Your task to perform on an android device: create a new album in the google photos Image 0: 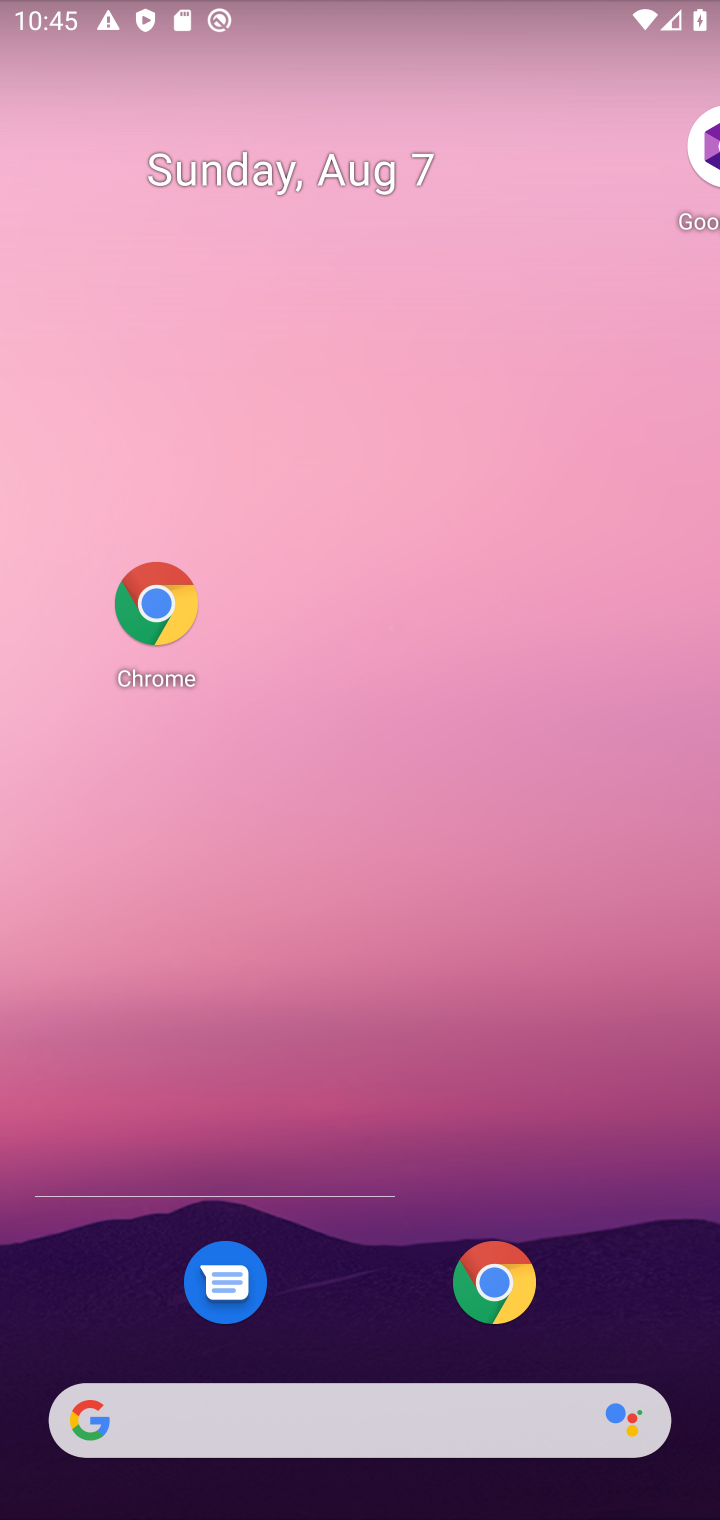
Step 0: press back button
Your task to perform on an android device: create a new album in the google photos Image 1: 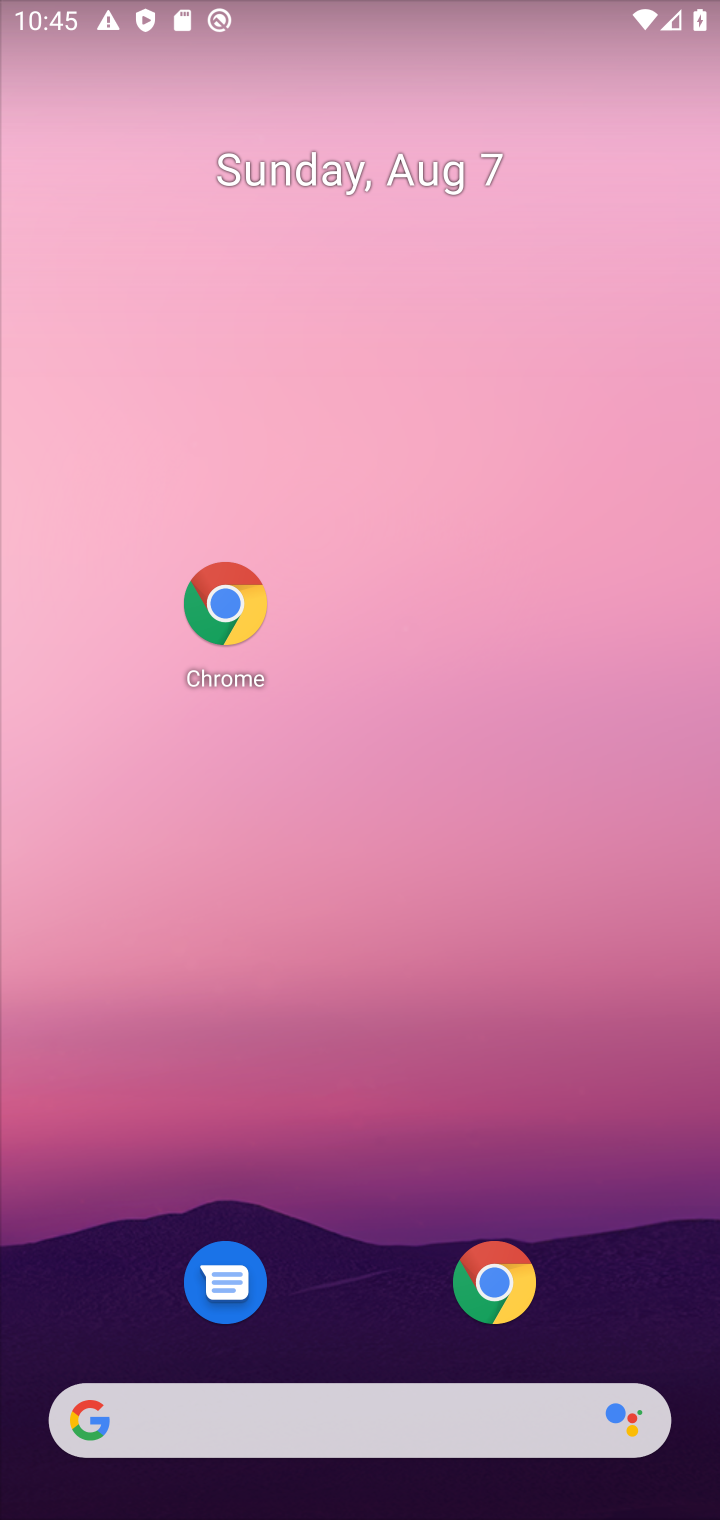
Step 1: click (280, 557)
Your task to perform on an android device: create a new album in the google photos Image 2: 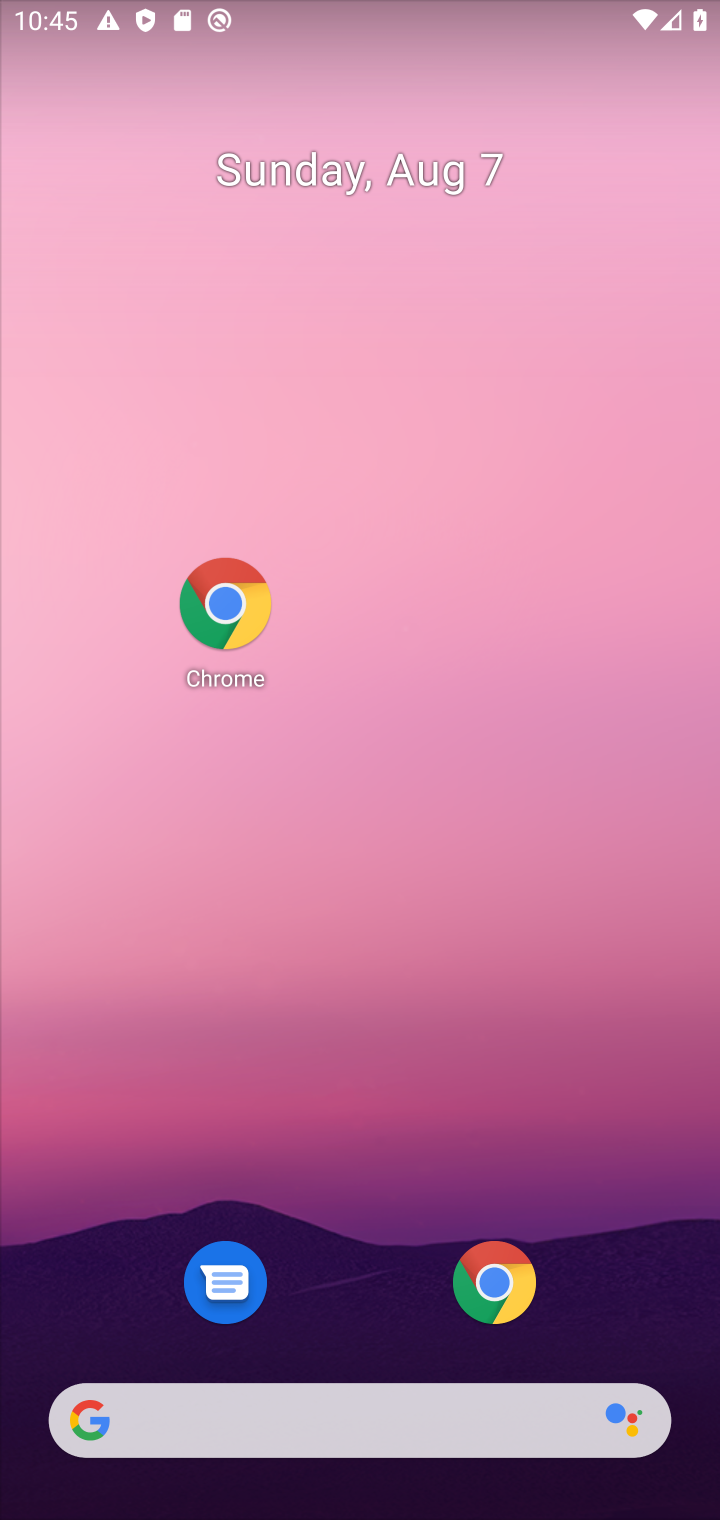
Step 2: drag from (491, 759) to (344, 425)
Your task to perform on an android device: create a new album in the google photos Image 3: 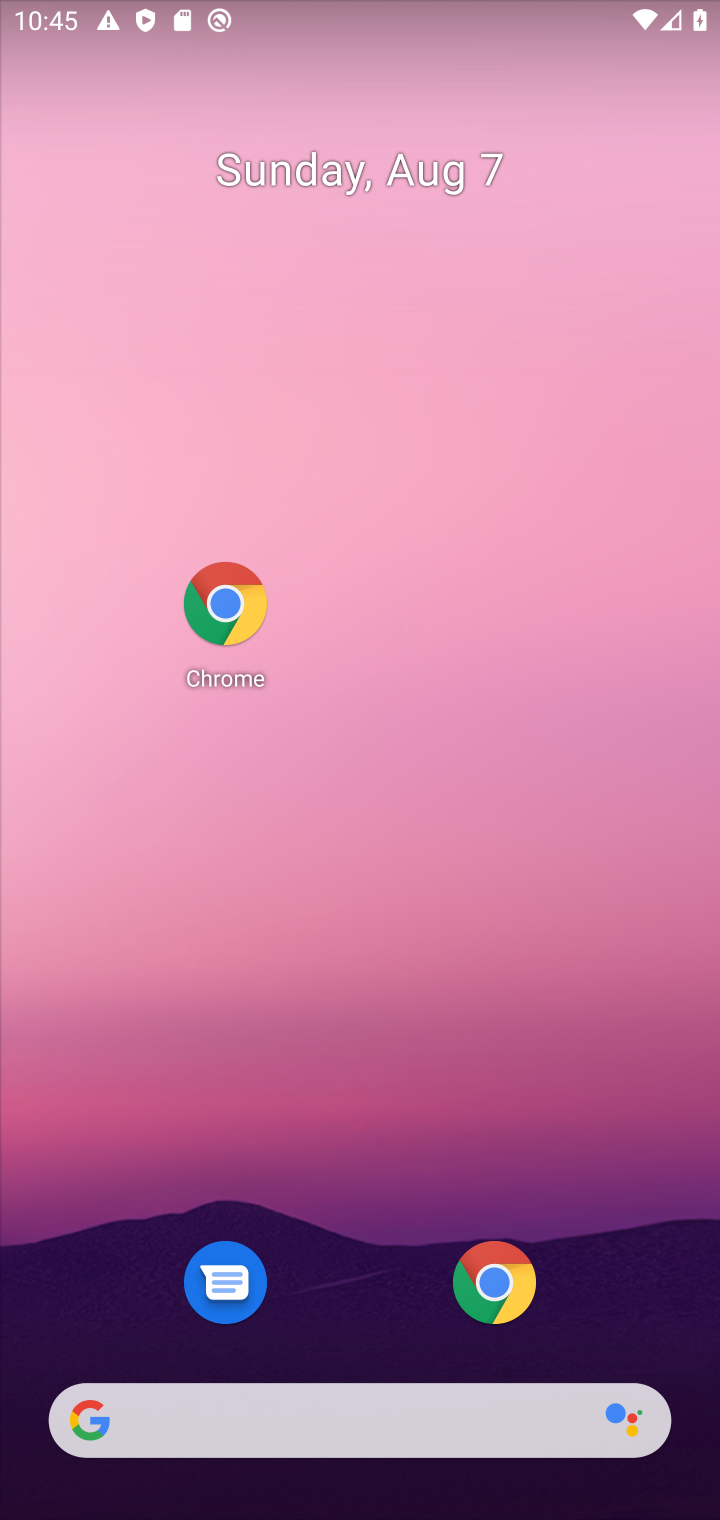
Step 3: click (414, 244)
Your task to perform on an android device: create a new album in the google photos Image 4: 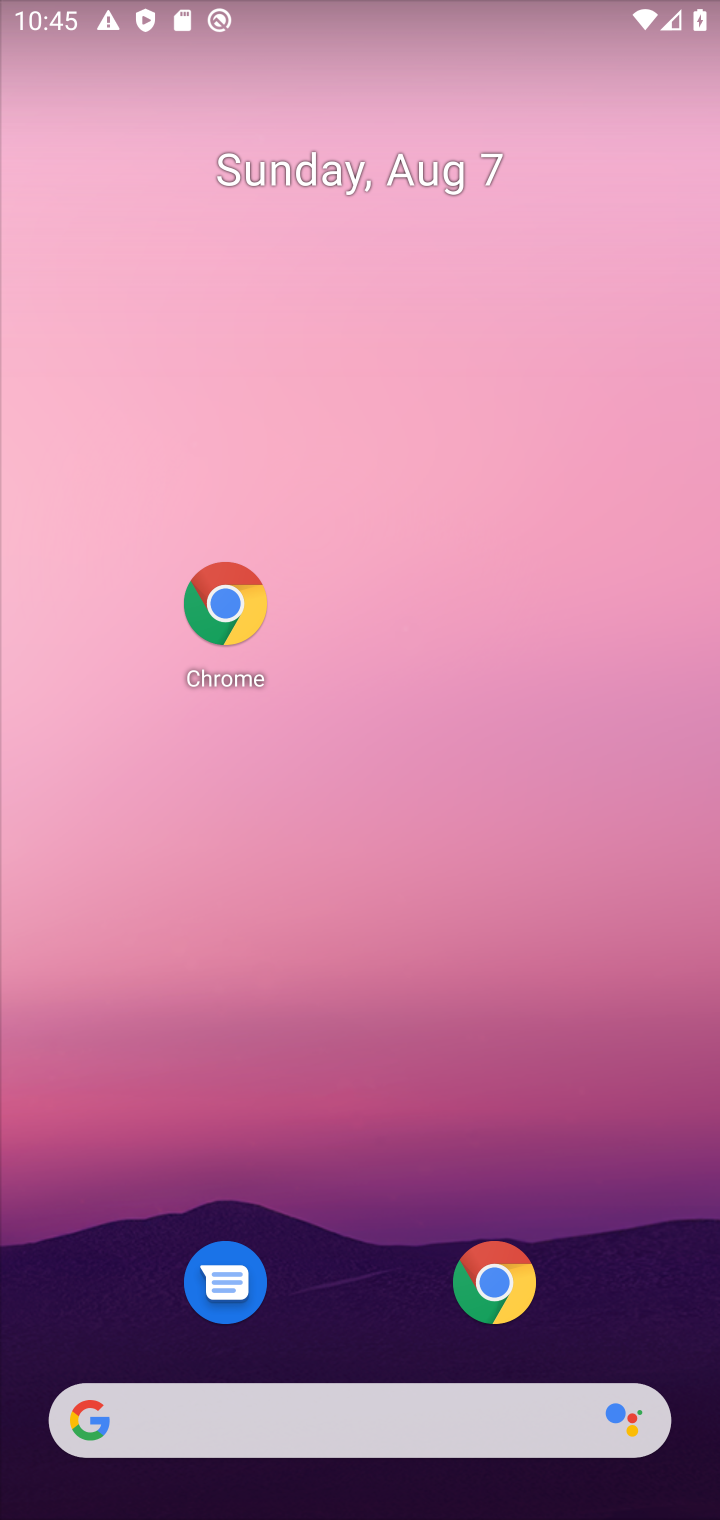
Step 4: click (523, 242)
Your task to perform on an android device: create a new album in the google photos Image 5: 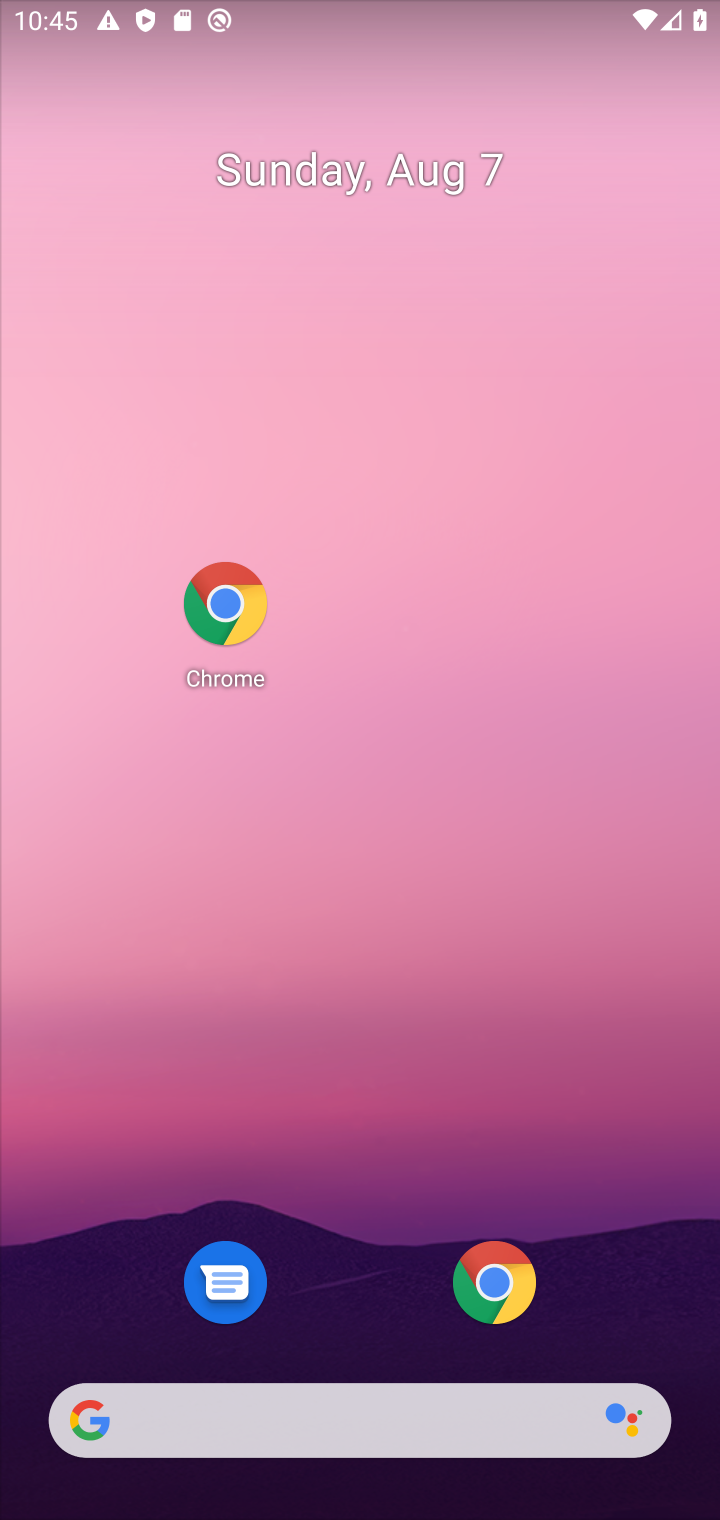
Step 5: drag from (540, 270) to (406, 362)
Your task to perform on an android device: create a new album in the google photos Image 6: 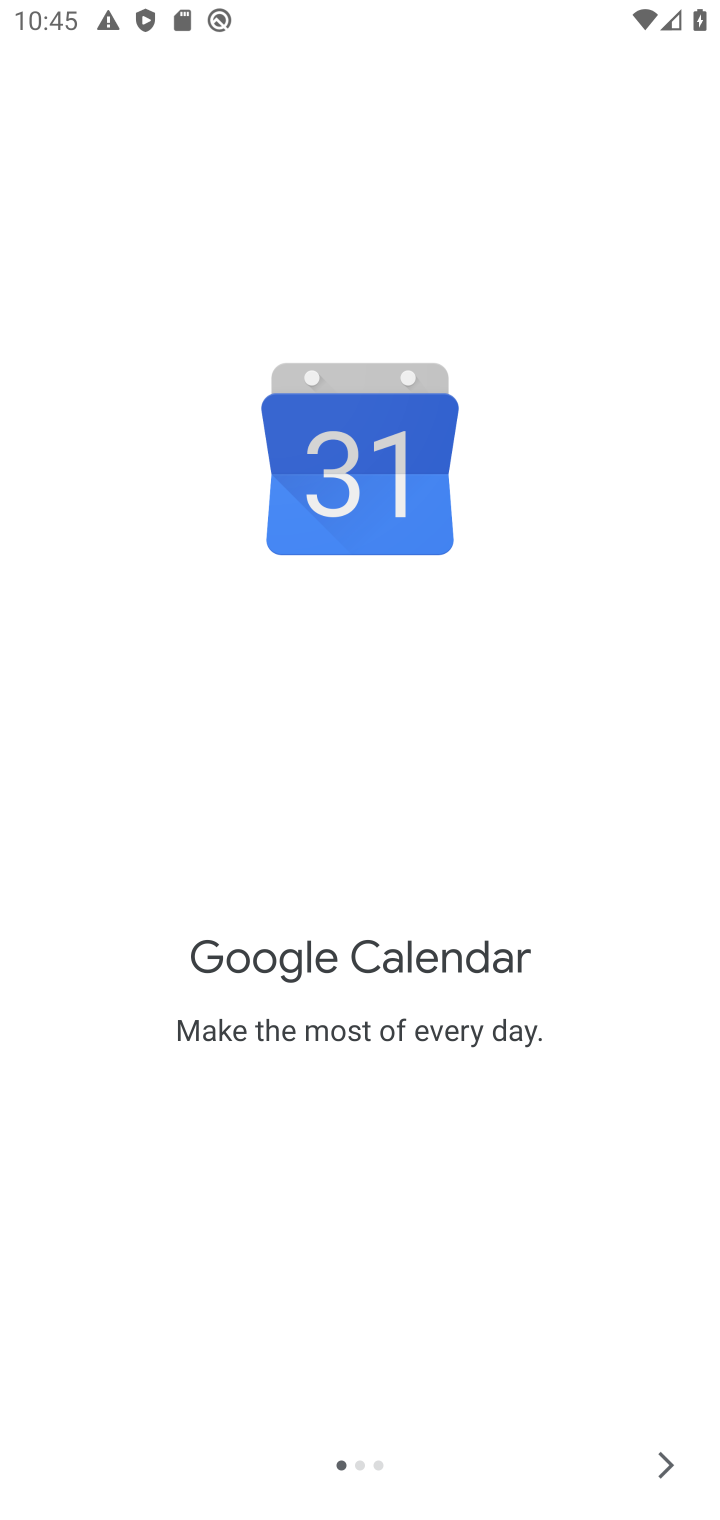
Step 6: press back button
Your task to perform on an android device: create a new album in the google photos Image 7: 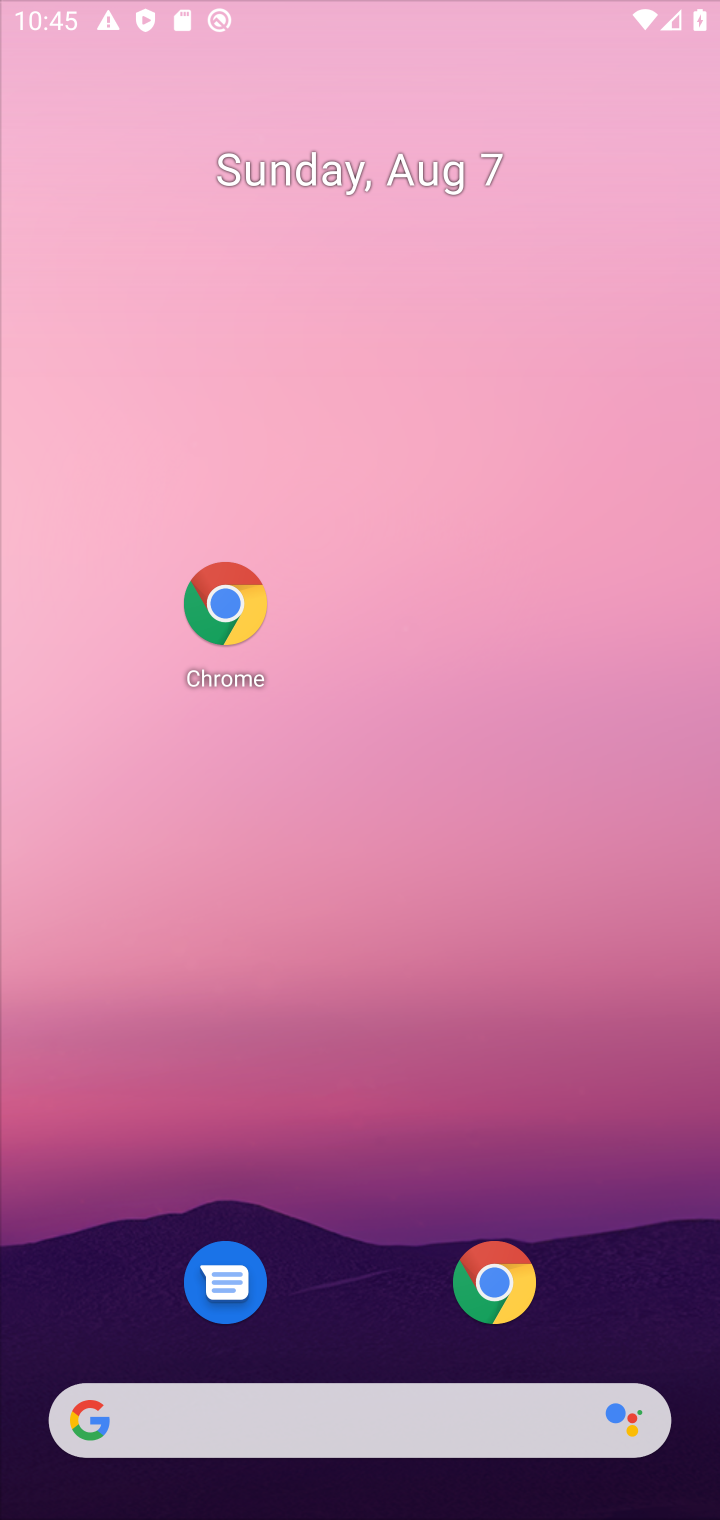
Step 7: press back button
Your task to perform on an android device: create a new album in the google photos Image 8: 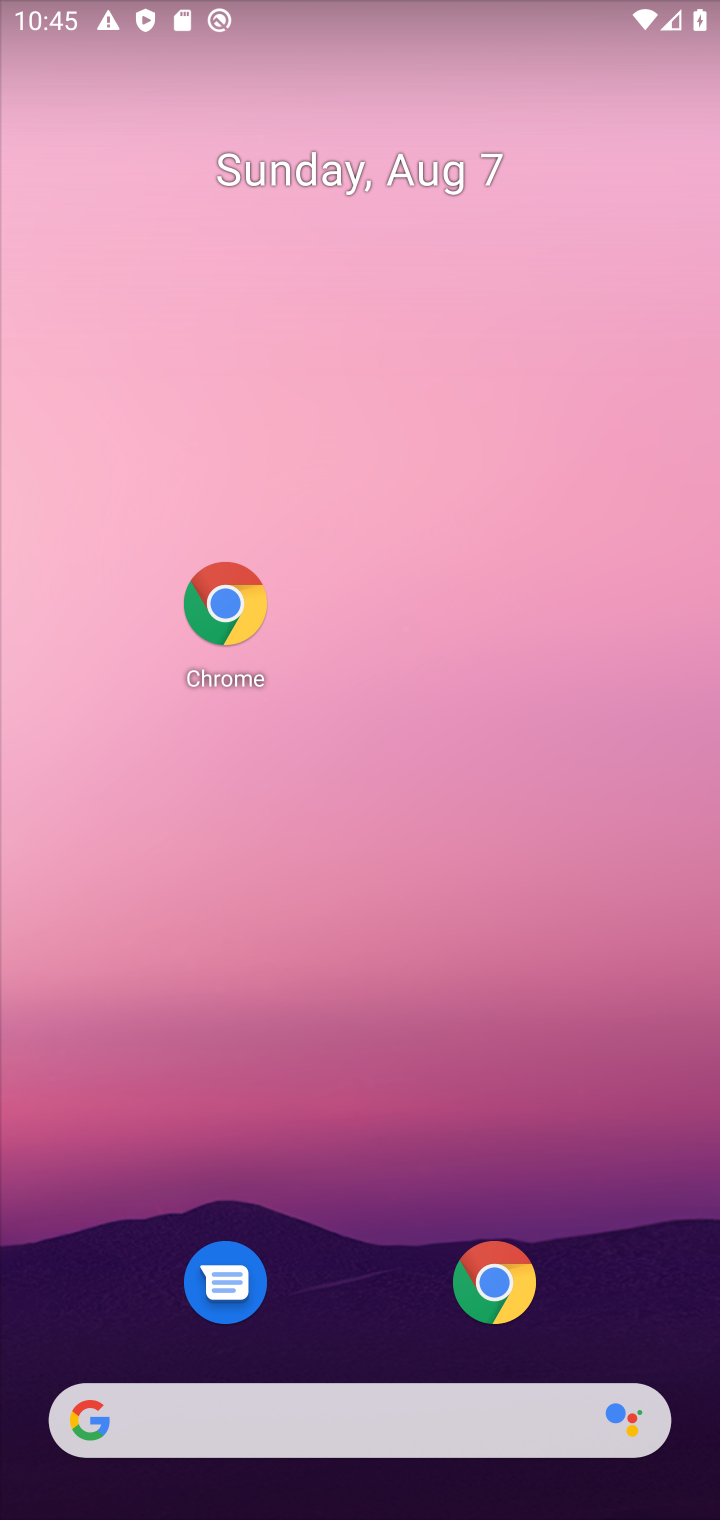
Step 8: click (355, 351)
Your task to perform on an android device: create a new album in the google photos Image 9: 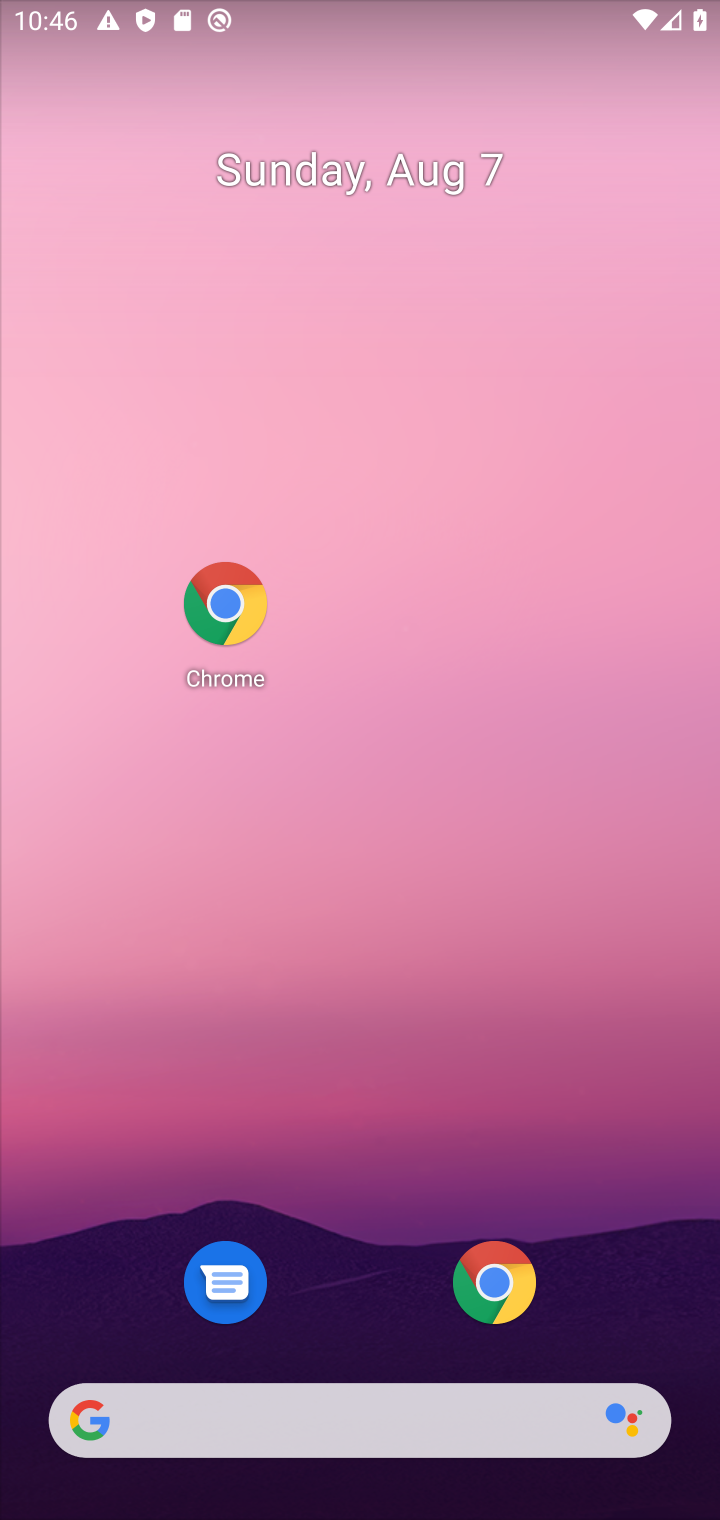
Step 9: click (288, 536)
Your task to perform on an android device: create a new album in the google photos Image 10: 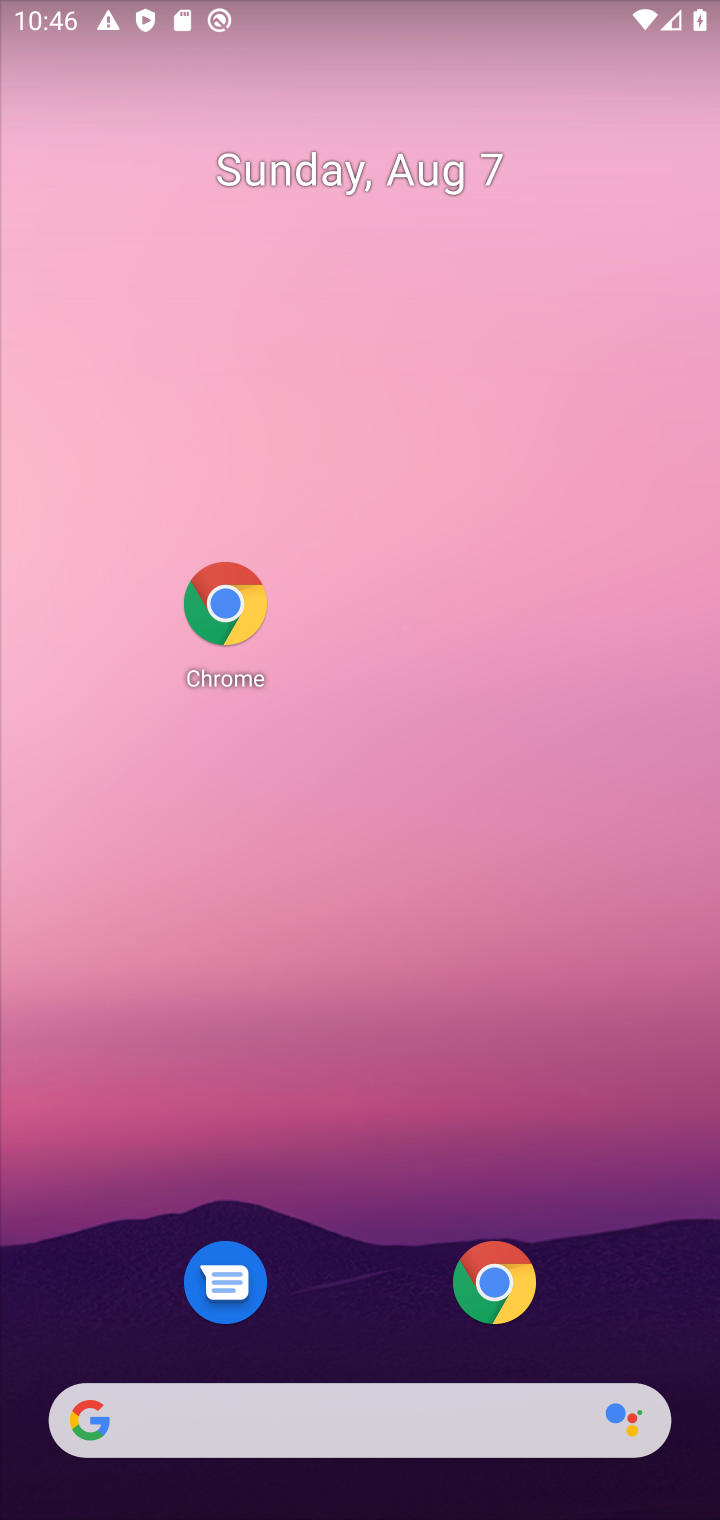
Step 10: click (385, 487)
Your task to perform on an android device: create a new album in the google photos Image 11: 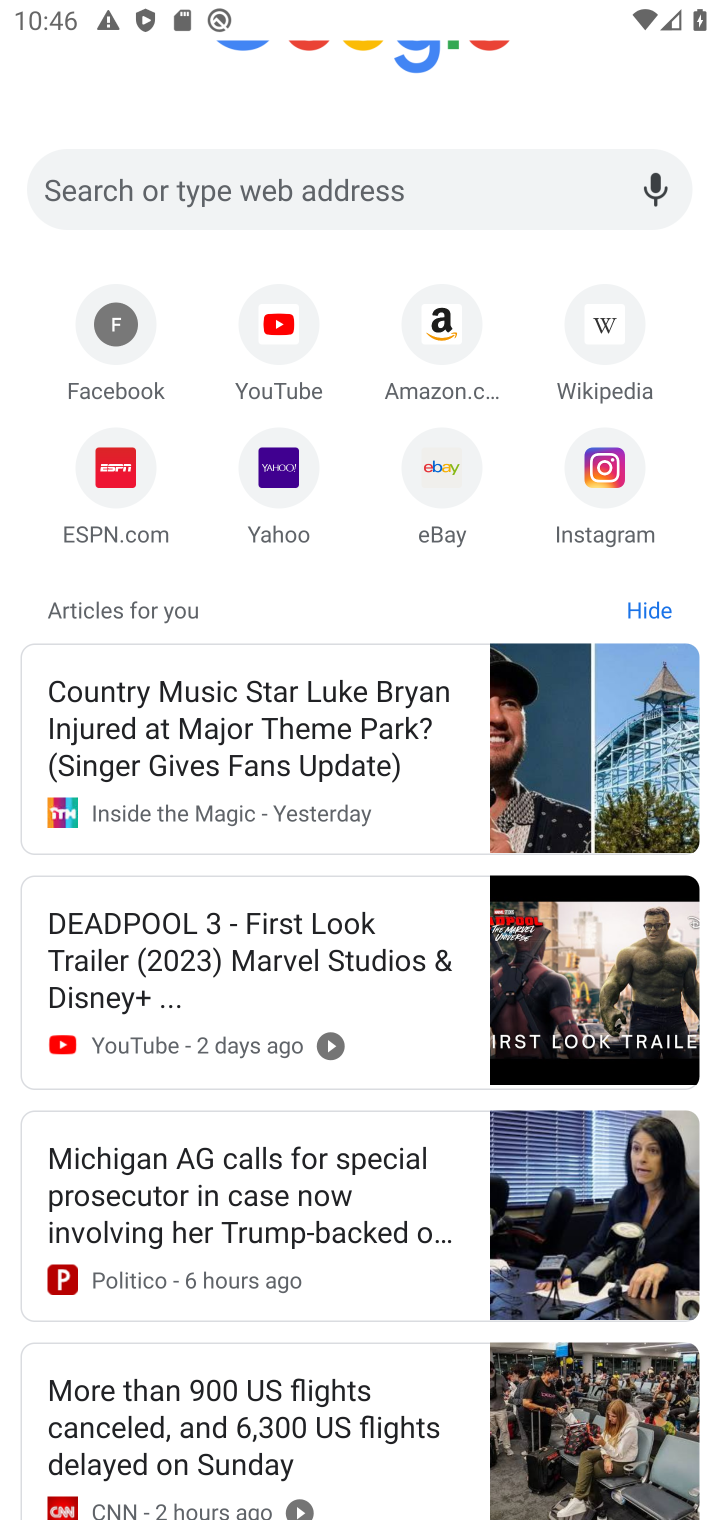
Step 11: click (360, 1091)
Your task to perform on an android device: create a new album in the google photos Image 12: 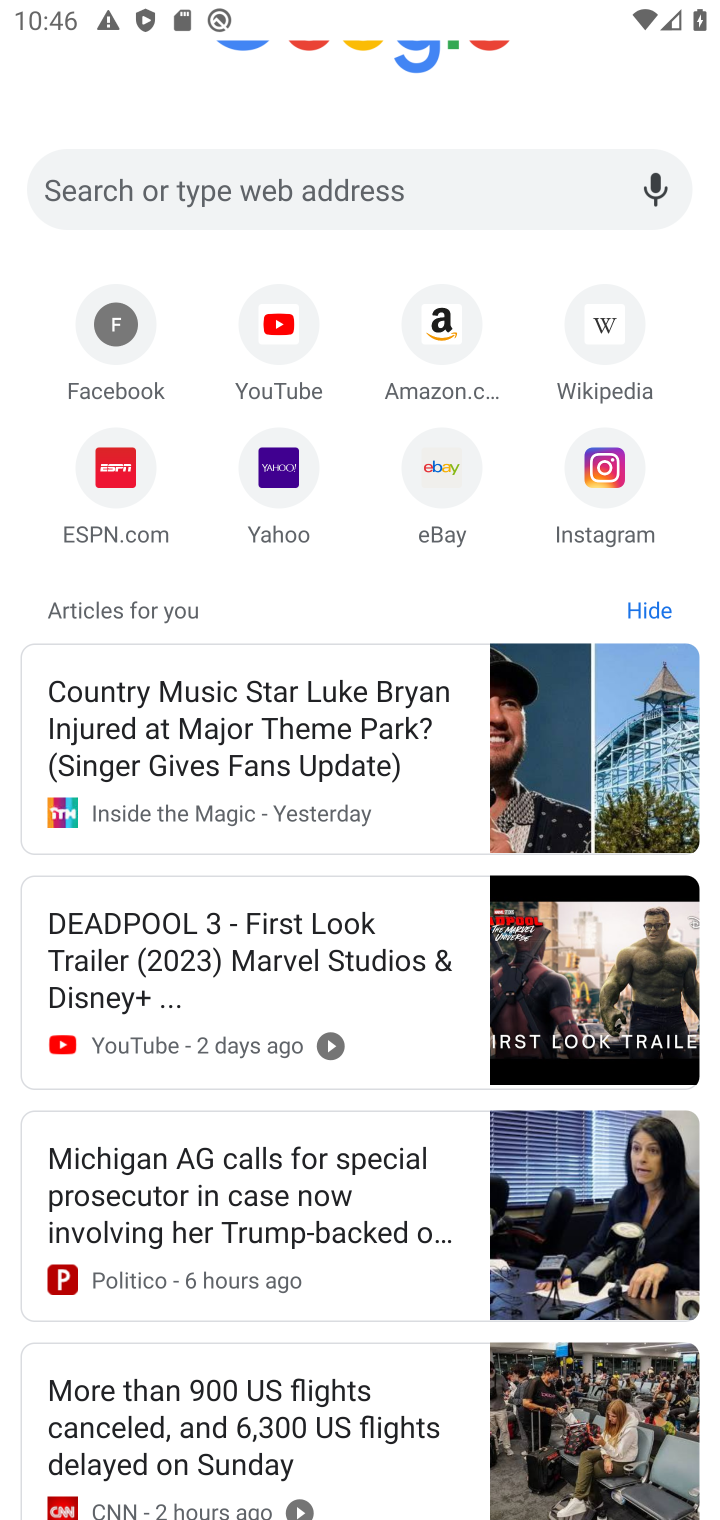
Step 12: click (392, 1128)
Your task to perform on an android device: create a new album in the google photos Image 13: 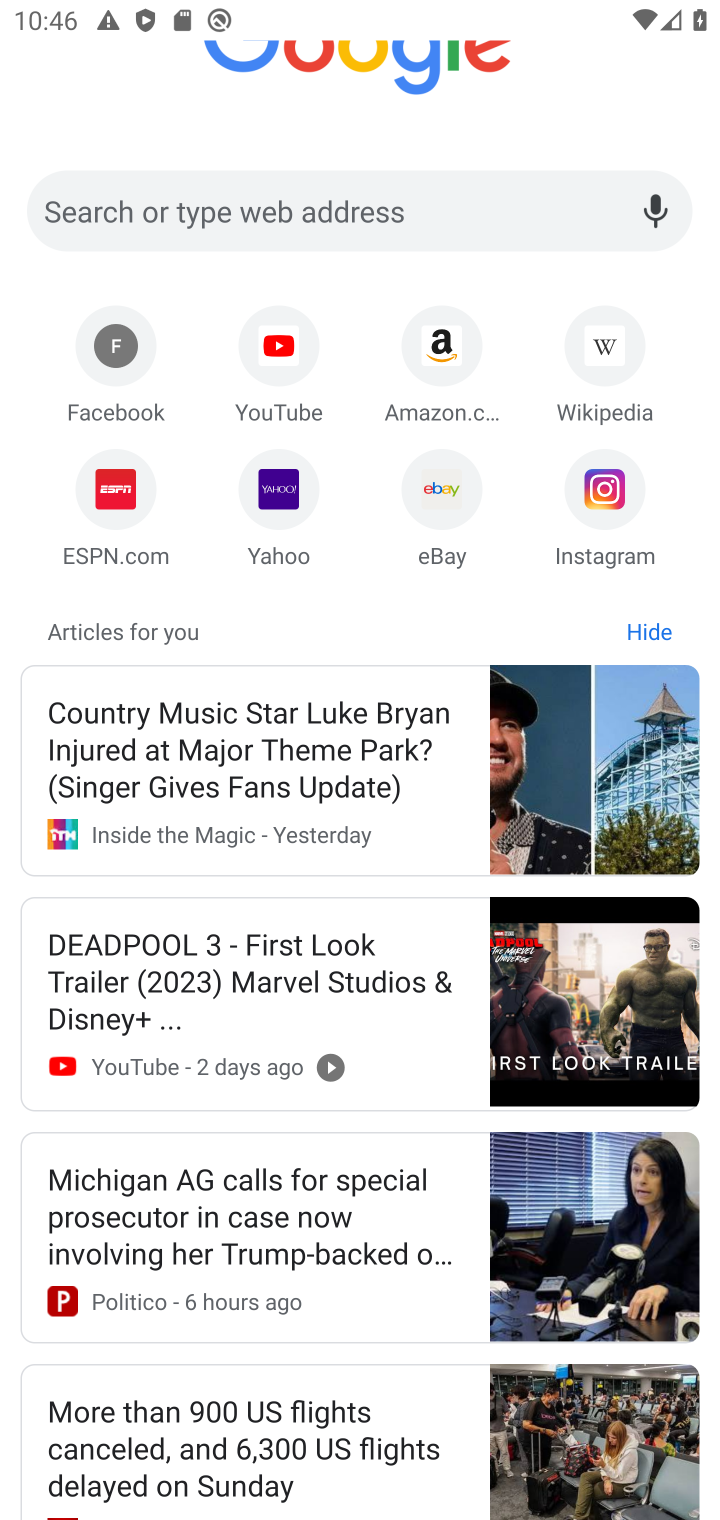
Step 13: drag from (341, 672) to (523, 1214)
Your task to perform on an android device: create a new album in the google photos Image 14: 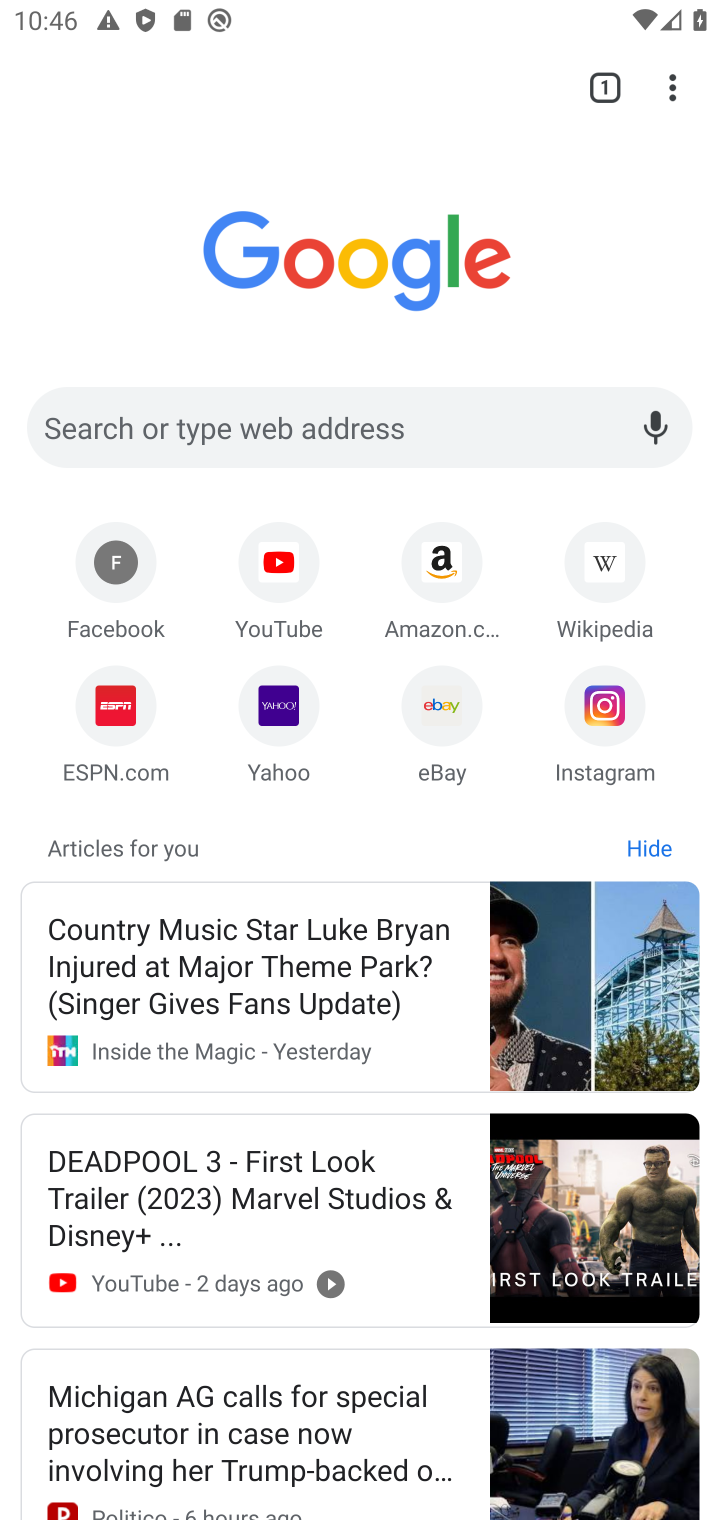
Step 14: press back button
Your task to perform on an android device: create a new album in the google photos Image 15: 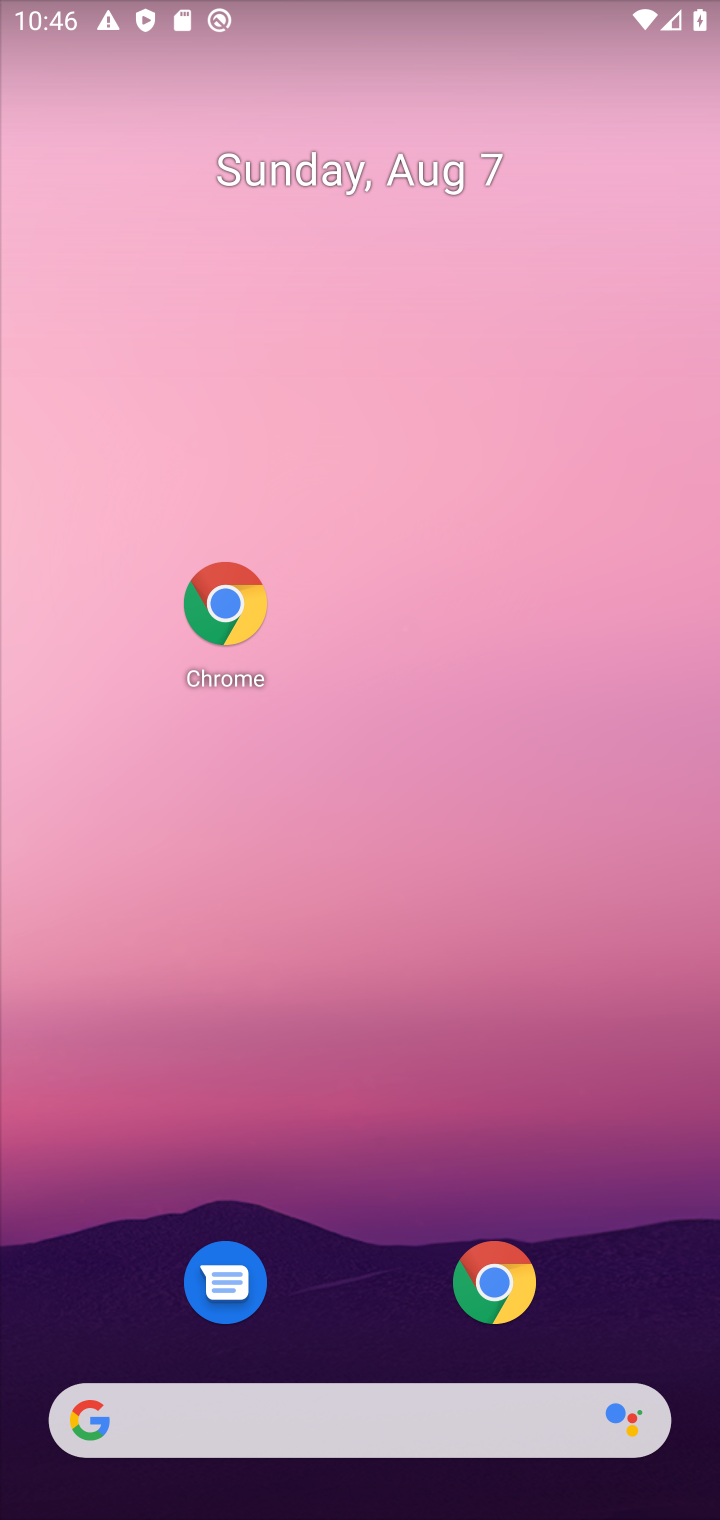
Step 15: drag from (433, 1098) to (359, 397)
Your task to perform on an android device: create a new album in the google photos Image 16: 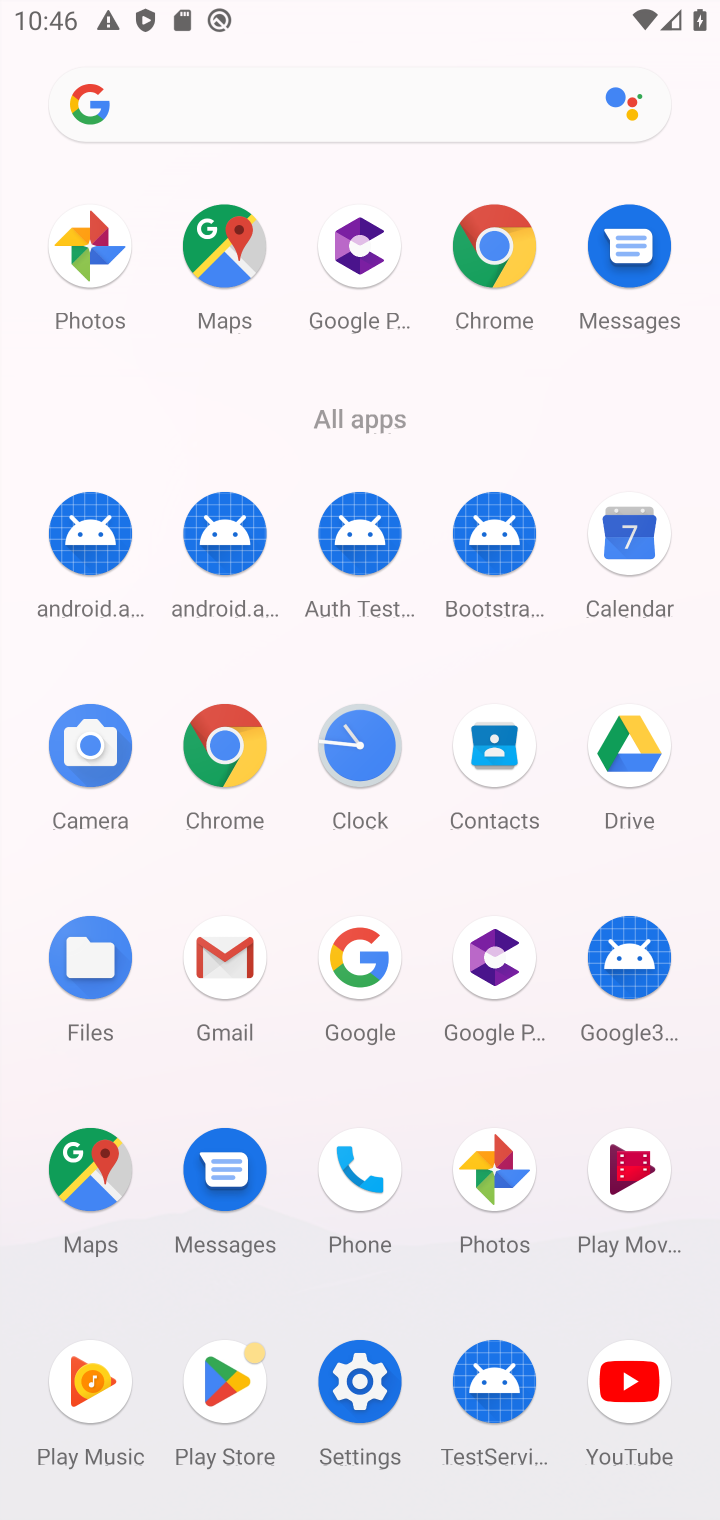
Step 16: drag from (415, 1325) to (311, 432)
Your task to perform on an android device: create a new album in the google photos Image 17: 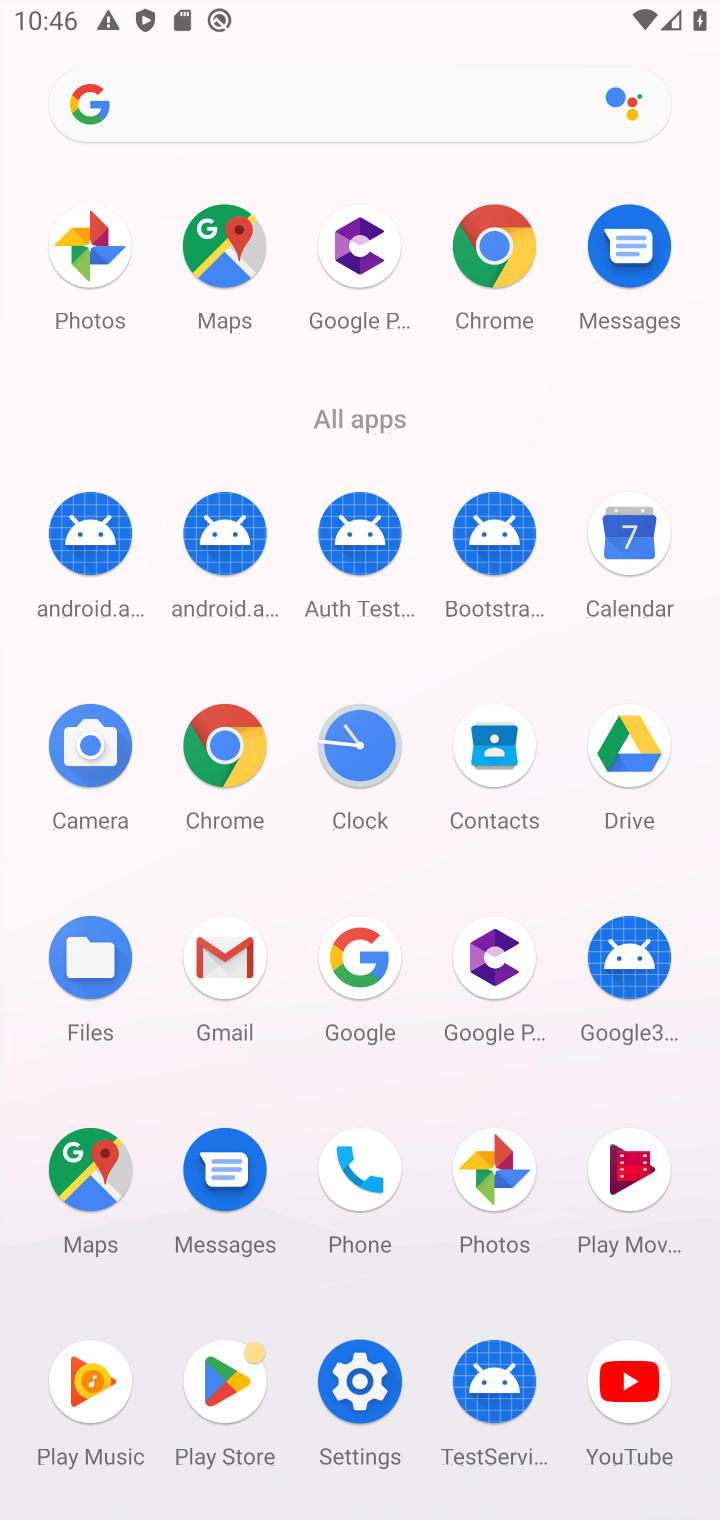
Step 17: drag from (371, 741) to (371, 650)
Your task to perform on an android device: create a new album in the google photos Image 18: 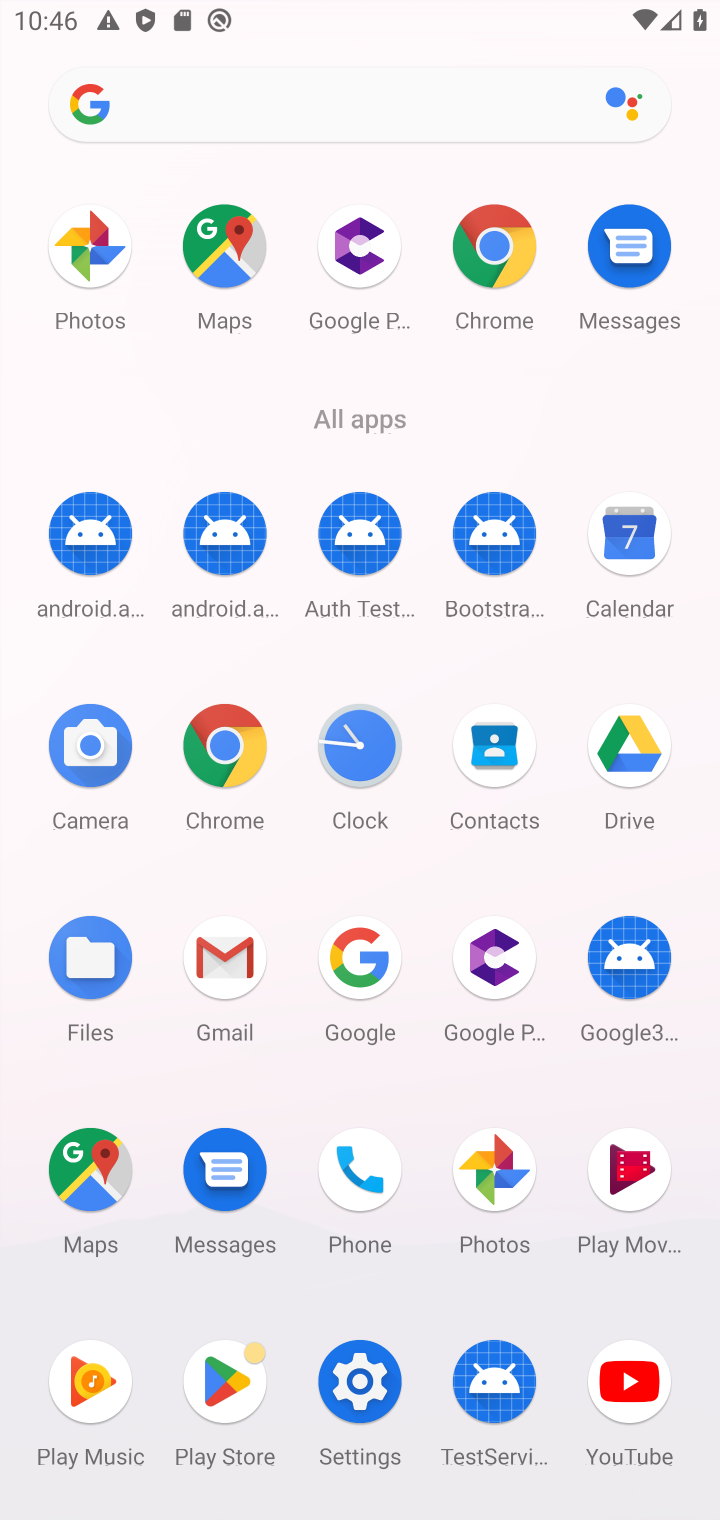
Step 18: click (505, 1157)
Your task to perform on an android device: create a new album in the google photos Image 19: 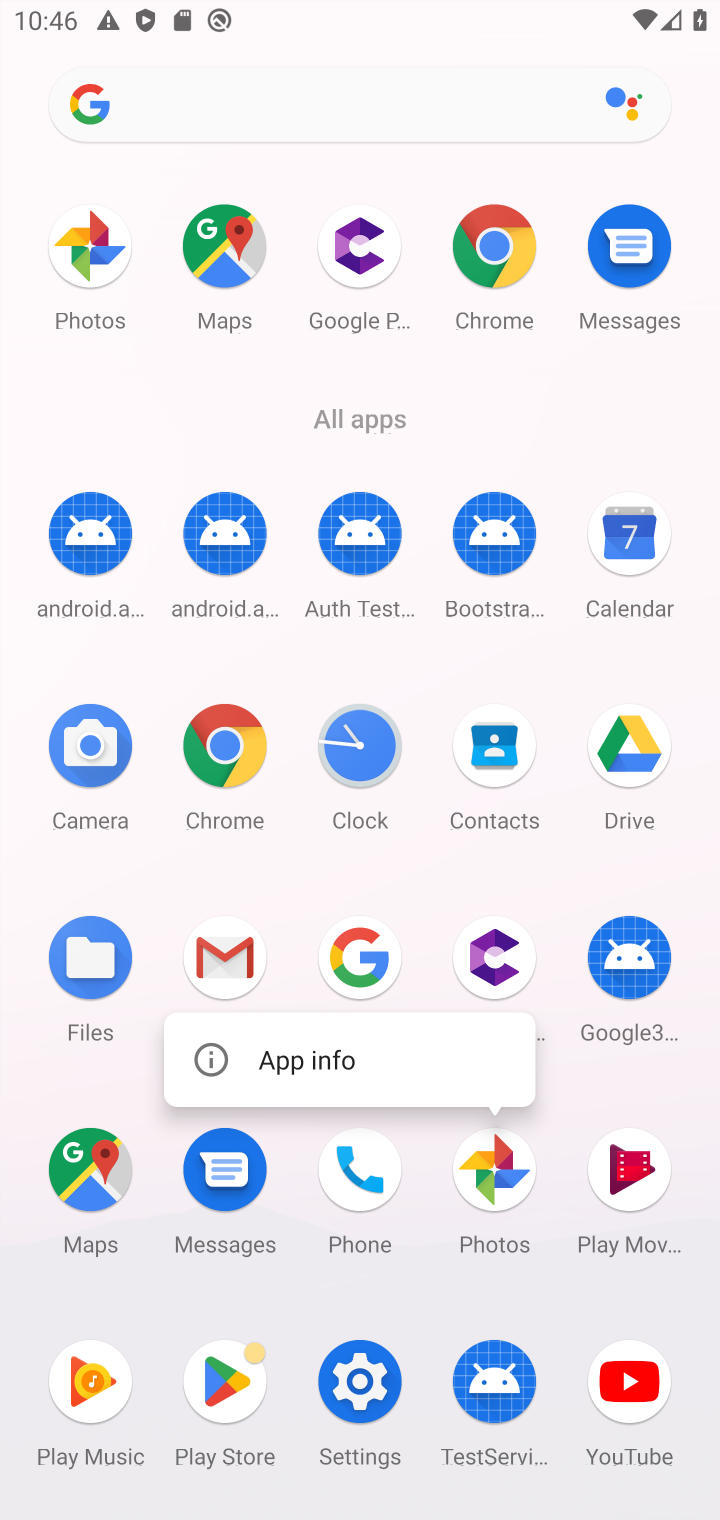
Step 19: click (494, 1165)
Your task to perform on an android device: create a new album in the google photos Image 20: 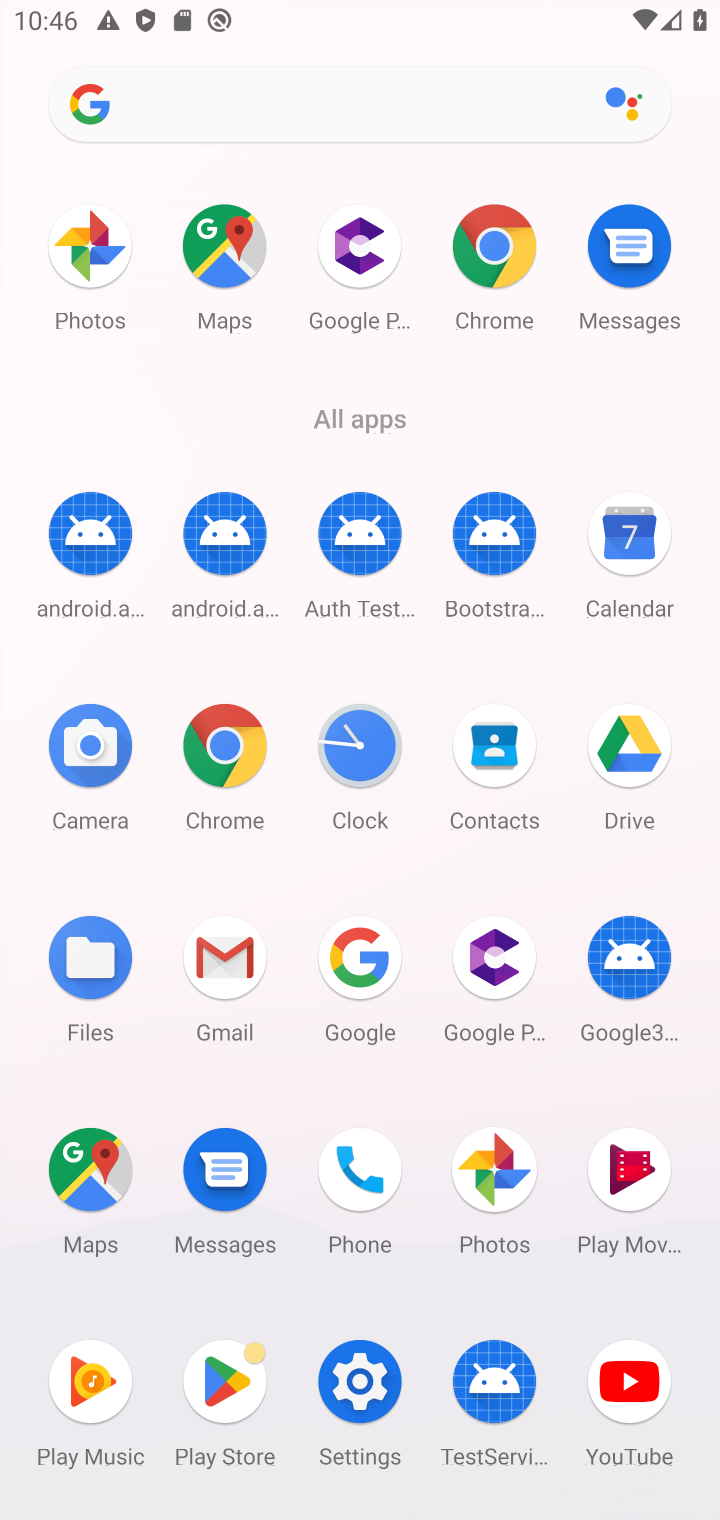
Step 20: click (492, 1167)
Your task to perform on an android device: create a new album in the google photos Image 21: 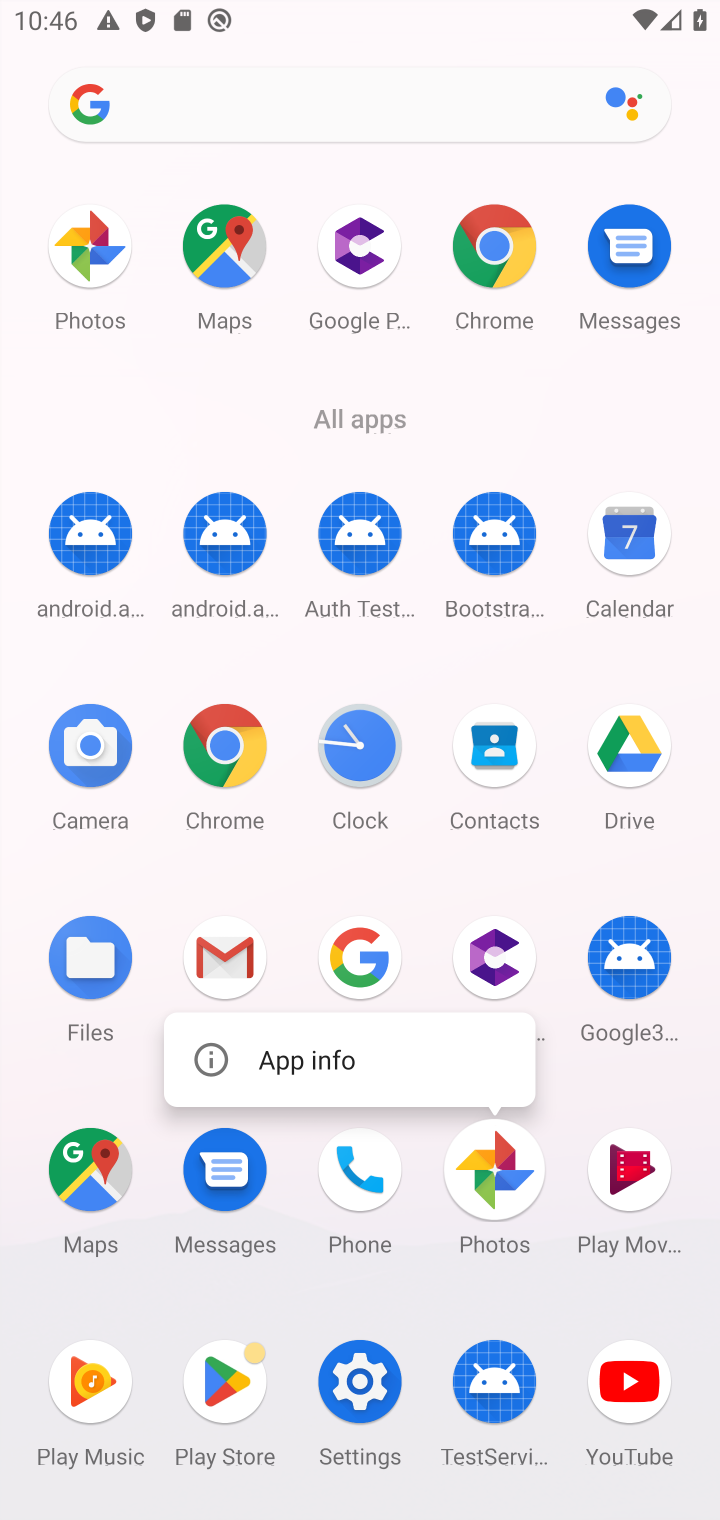
Step 21: click (492, 1167)
Your task to perform on an android device: create a new album in the google photos Image 22: 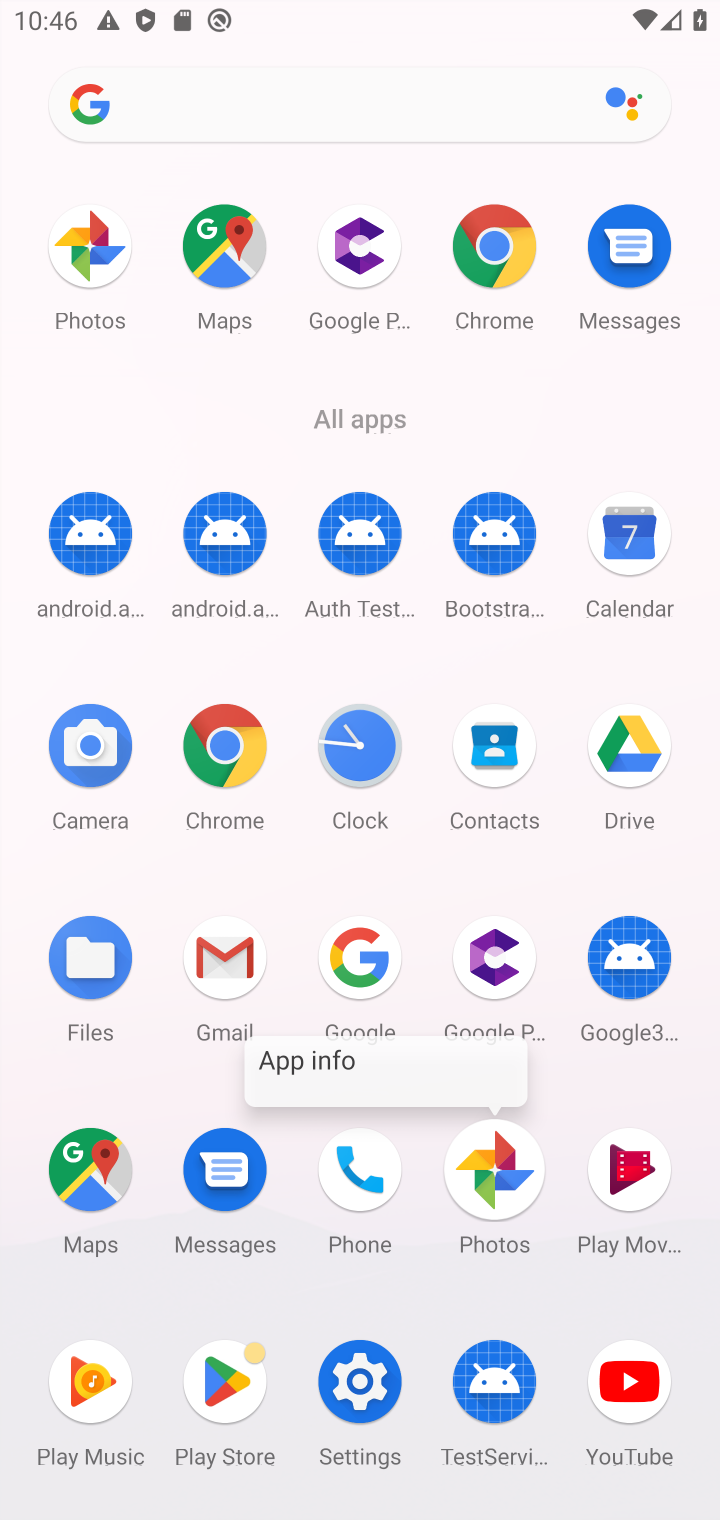
Step 22: click (488, 1149)
Your task to perform on an android device: create a new album in the google photos Image 23: 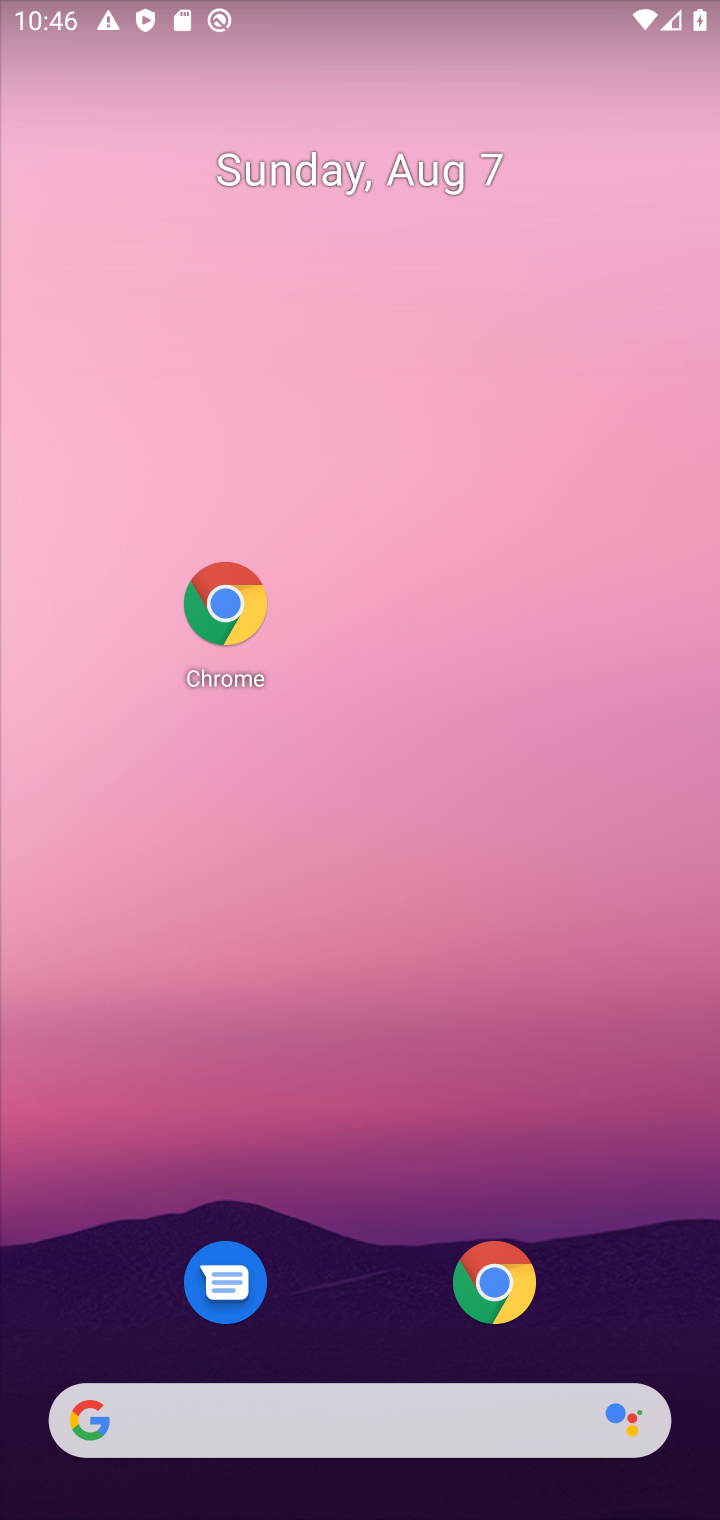
Step 23: click (257, 488)
Your task to perform on an android device: create a new album in the google photos Image 24: 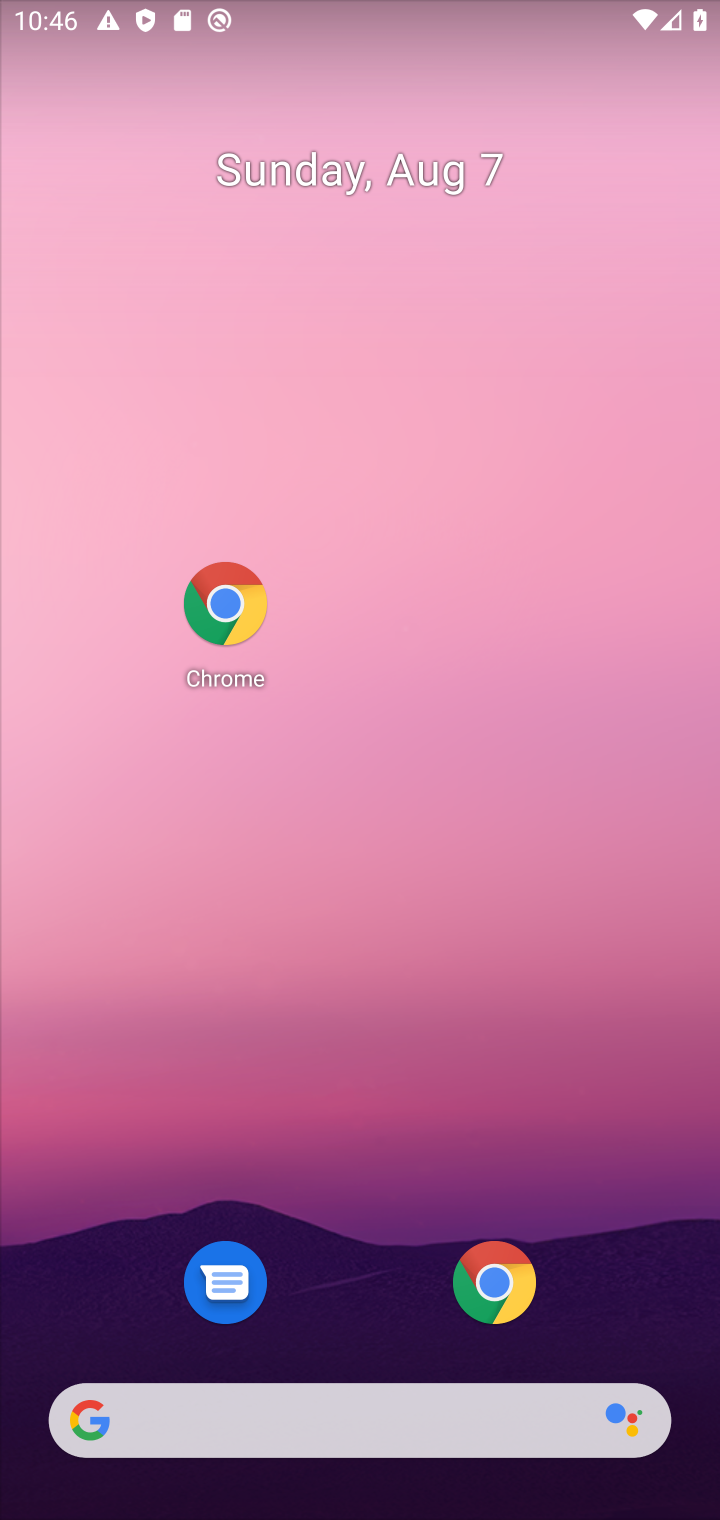
Step 24: task complete